Your task to perform on an android device: Open Android settings Image 0: 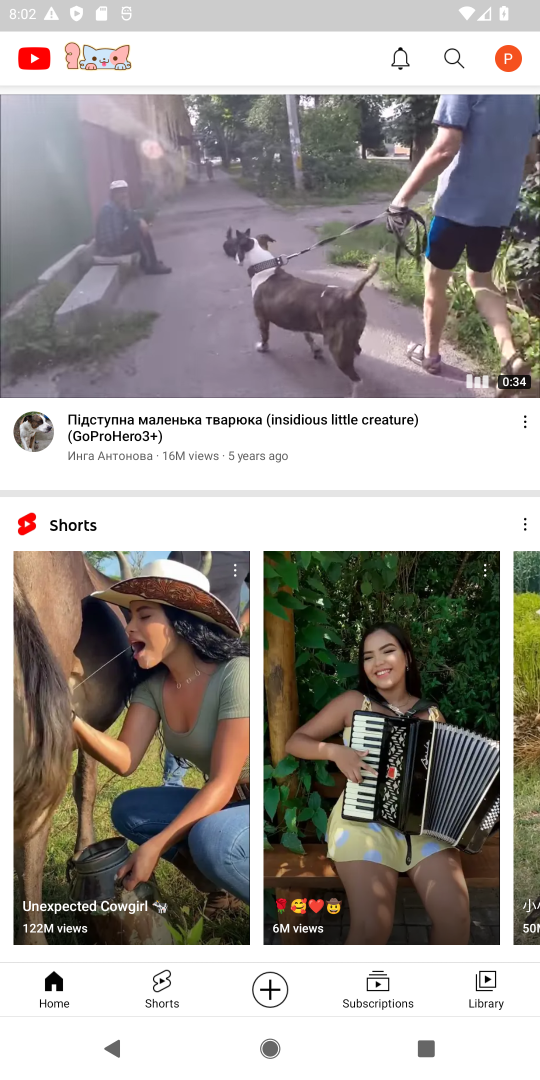
Step 0: press home button
Your task to perform on an android device: Open Android settings Image 1: 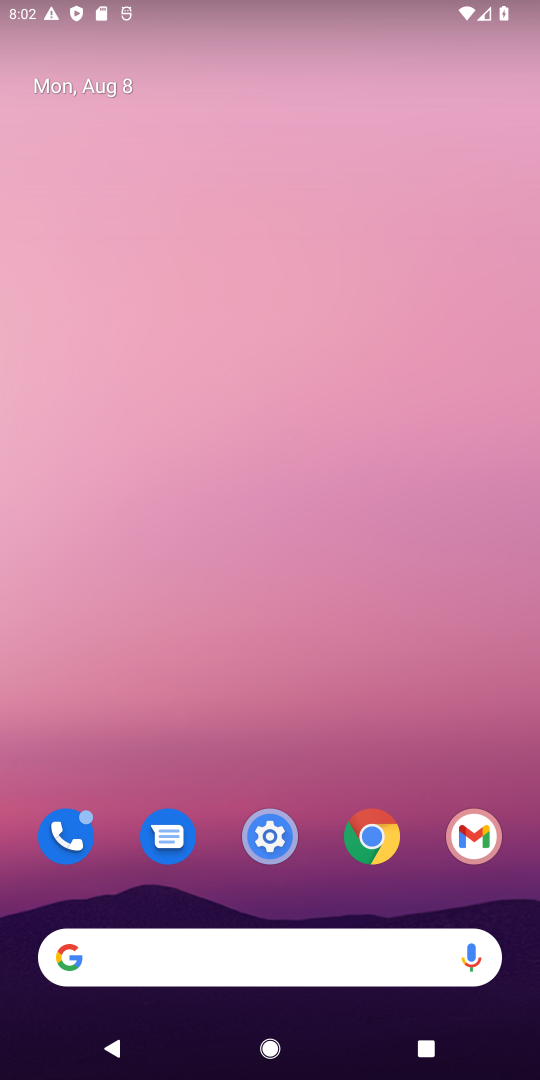
Step 1: click (276, 832)
Your task to perform on an android device: Open Android settings Image 2: 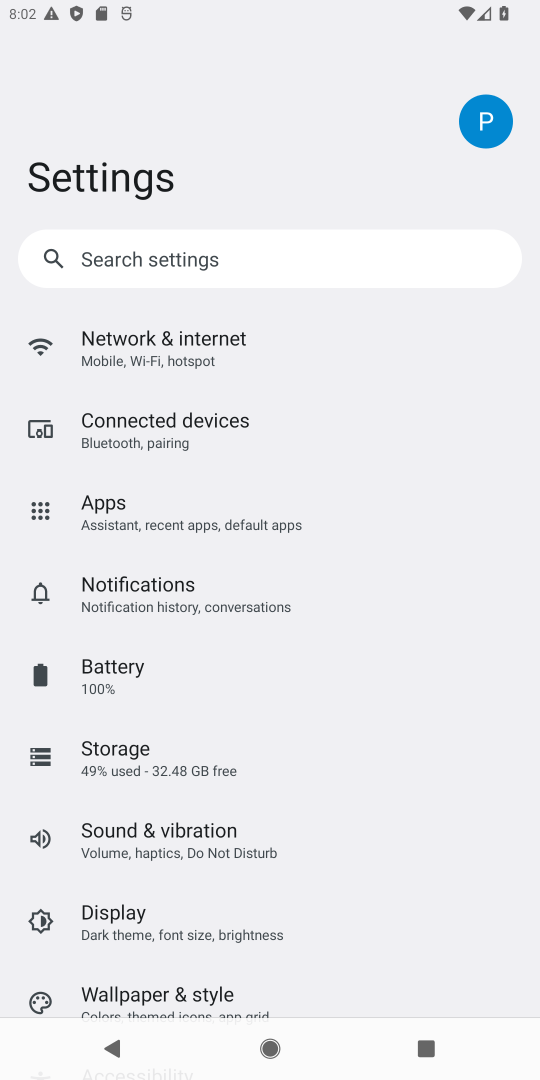
Step 2: task complete